Your task to perform on an android device: move an email to a new category in the gmail app Image 0: 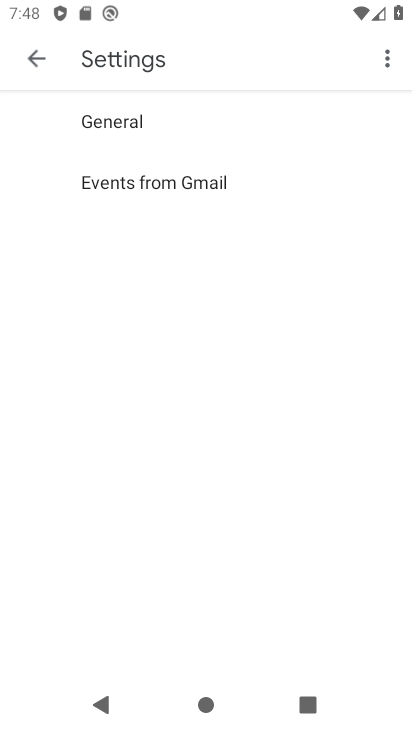
Step 0: press home button
Your task to perform on an android device: move an email to a new category in the gmail app Image 1: 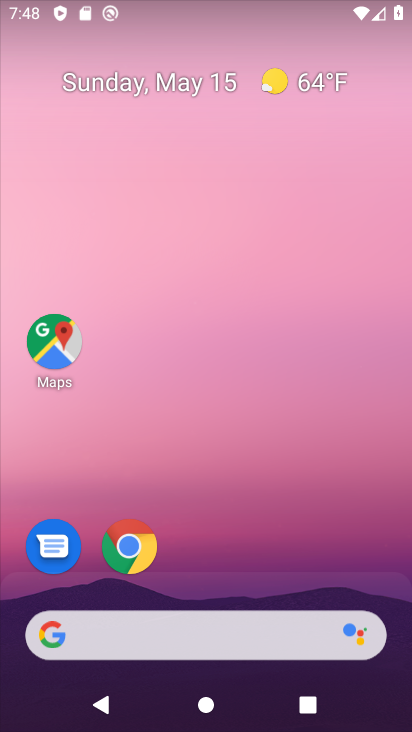
Step 1: drag from (234, 619) to (237, 208)
Your task to perform on an android device: move an email to a new category in the gmail app Image 2: 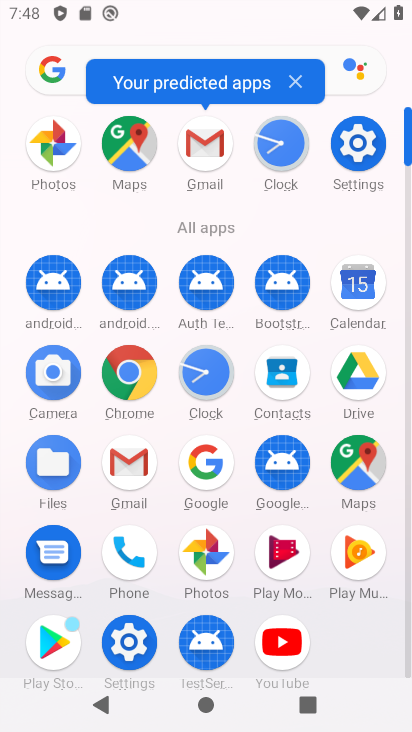
Step 2: click (125, 473)
Your task to perform on an android device: move an email to a new category in the gmail app Image 3: 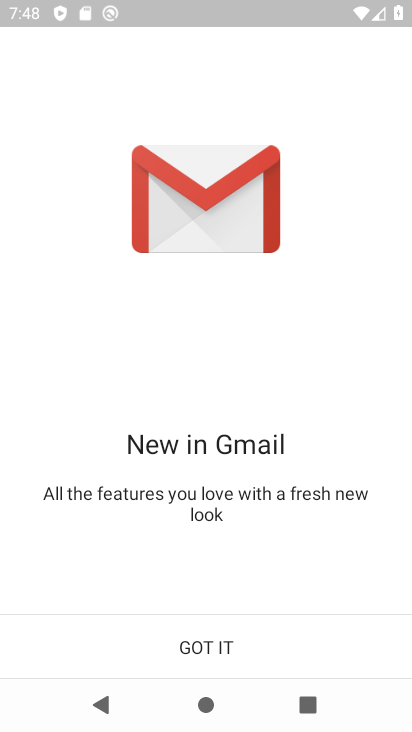
Step 3: click (223, 644)
Your task to perform on an android device: move an email to a new category in the gmail app Image 4: 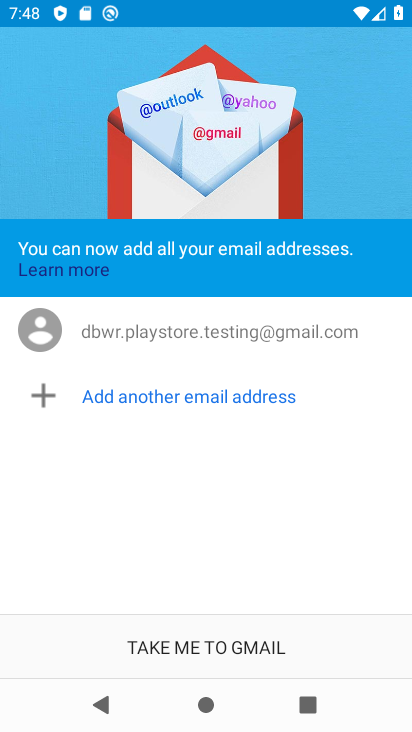
Step 4: click (223, 639)
Your task to perform on an android device: move an email to a new category in the gmail app Image 5: 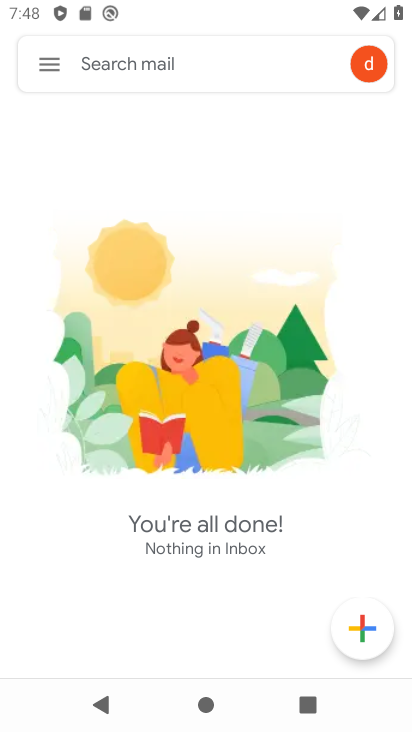
Step 5: task complete